Your task to perform on an android device: remove spam from my inbox in the gmail app Image 0: 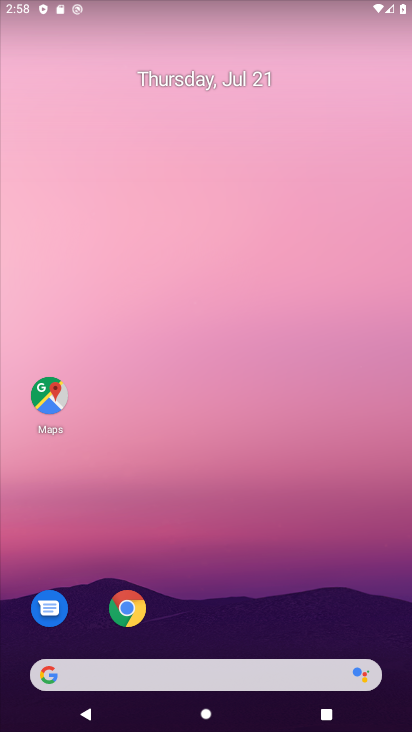
Step 0: drag from (269, 684) to (339, 24)
Your task to perform on an android device: remove spam from my inbox in the gmail app Image 1: 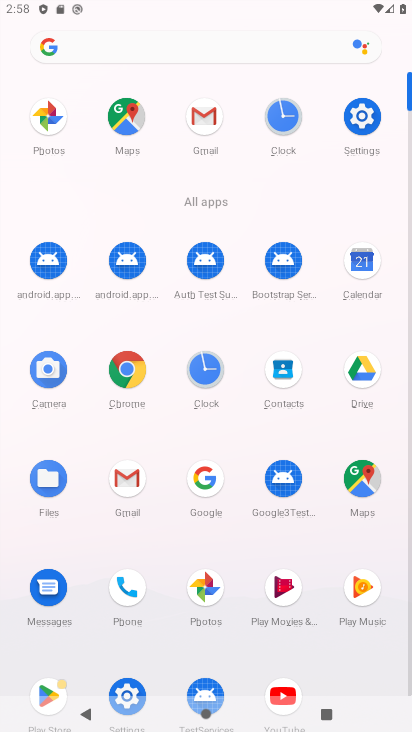
Step 1: click (129, 472)
Your task to perform on an android device: remove spam from my inbox in the gmail app Image 2: 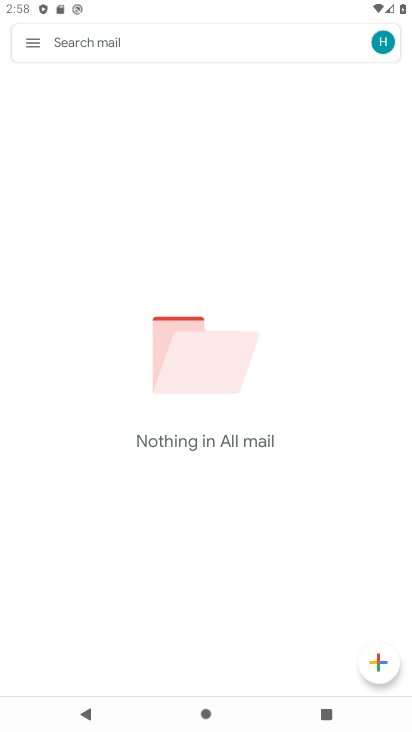
Step 2: click (26, 38)
Your task to perform on an android device: remove spam from my inbox in the gmail app Image 3: 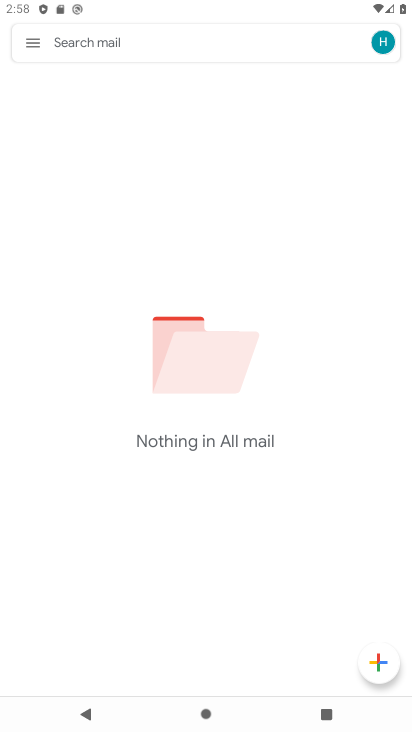
Step 3: click (34, 43)
Your task to perform on an android device: remove spam from my inbox in the gmail app Image 4: 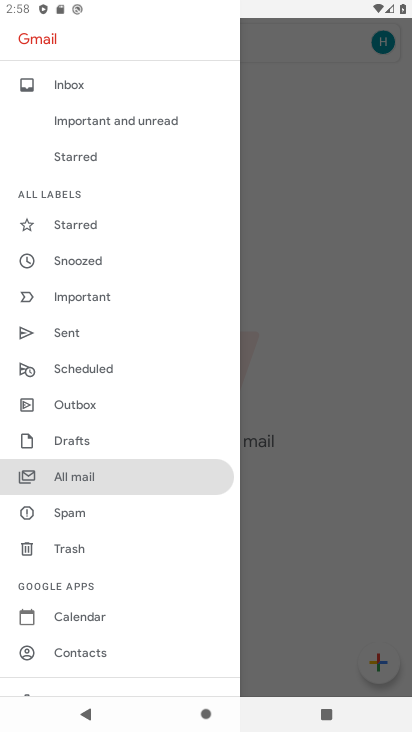
Step 4: click (105, 507)
Your task to perform on an android device: remove spam from my inbox in the gmail app Image 5: 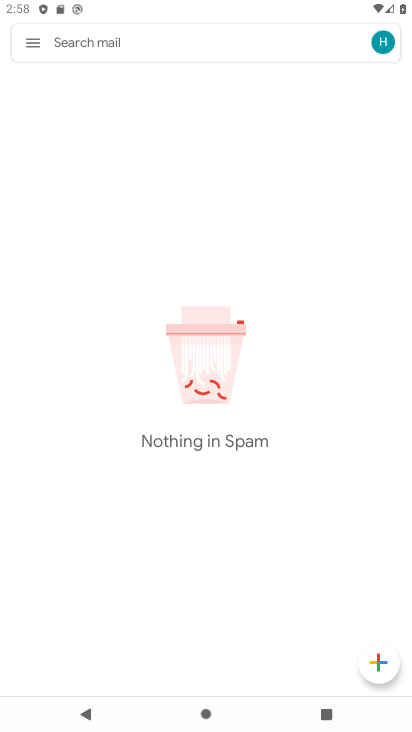
Step 5: task complete